Your task to perform on an android device: turn on translation in the chrome app Image 0: 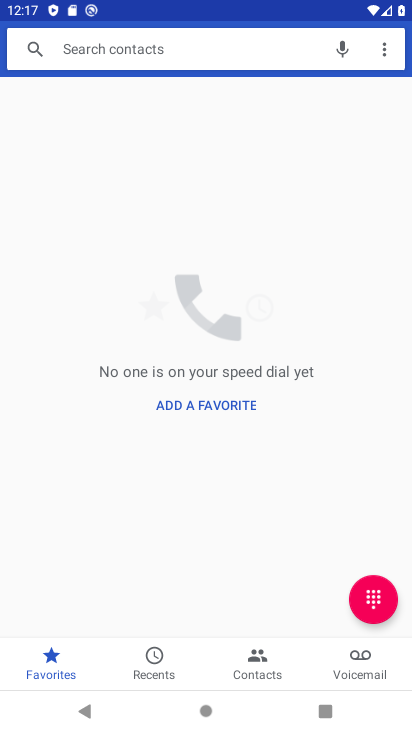
Step 0: press home button
Your task to perform on an android device: turn on translation in the chrome app Image 1: 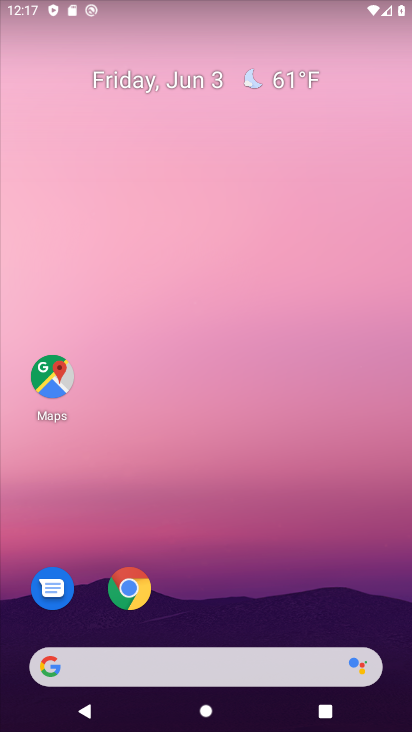
Step 1: drag from (227, 641) to (221, 184)
Your task to perform on an android device: turn on translation in the chrome app Image 2: 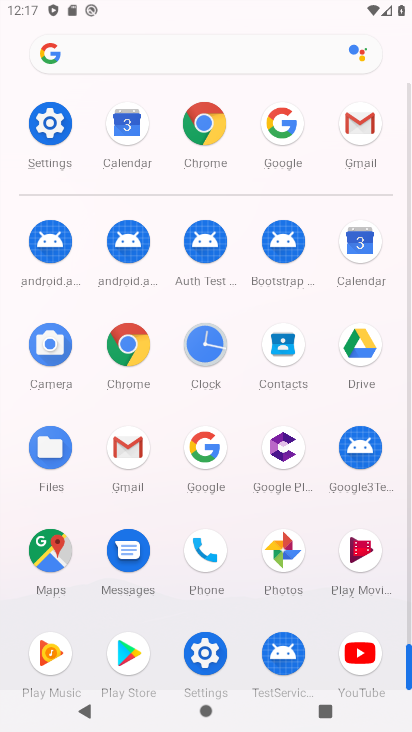
Step 2: click (111, 365)
Your task to perform on an android device: turn on translation in the chrome app Image 3: 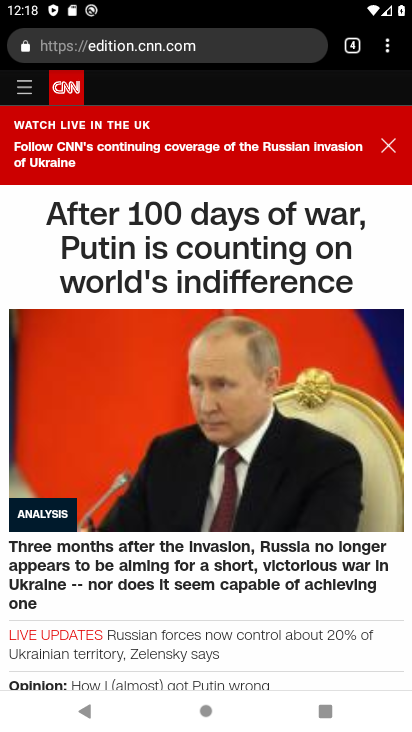
Step 3: click (398, 52)
Your task to perform on an android device: turn on translation in the chrome app Image 4: 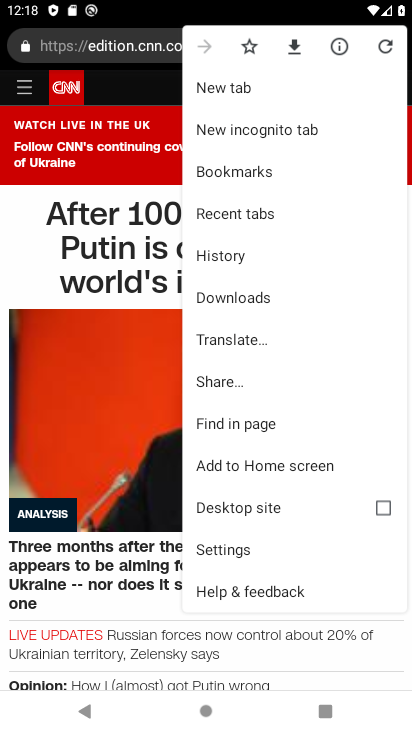
Step 4: drag from (293, 471) to (287, 131)
Your task to perform on an android device: turn on translation in the chrome app Image 5: 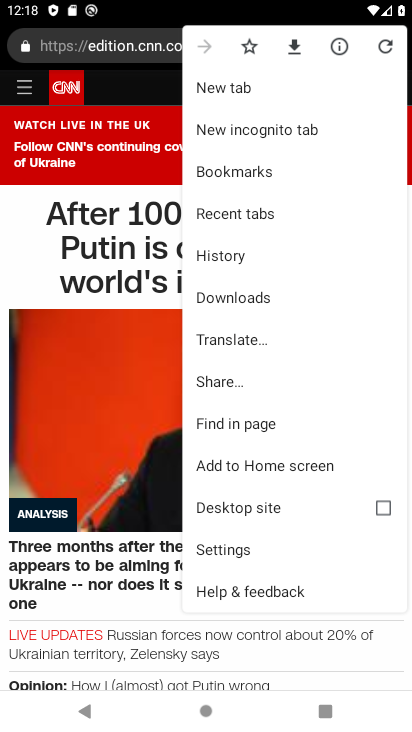
Step 5: click (258, 546)
Your task to perform on an android device: turn on translation in the chrome app Image 6: 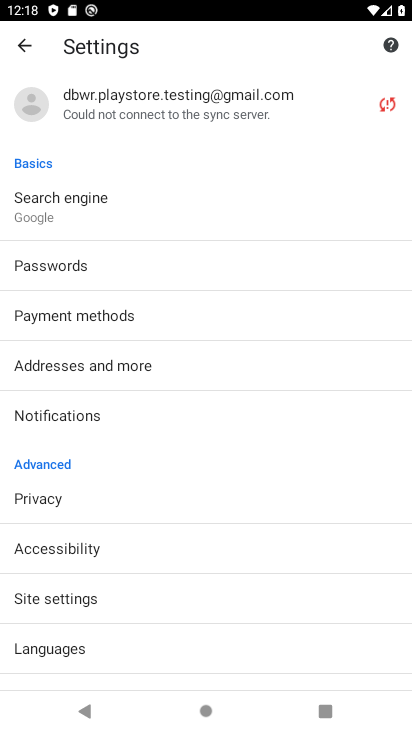
Step 6: click (115, 650)
Your task to perform on an android device: turn on translation in the chrome app Image 7: 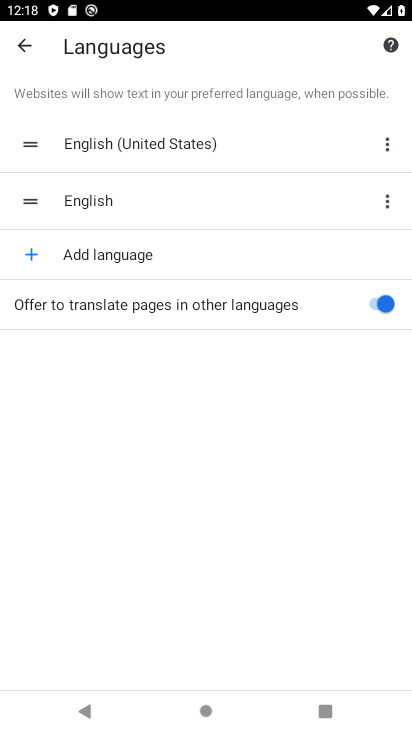
Step 7: task complete